Your task to perform on an android device: open chrome and create a bookmark for the current page Image 0: 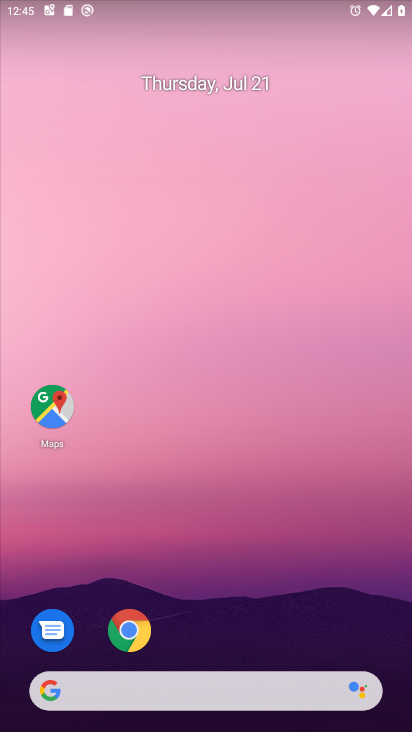
Step 0: drag from (238, 630) to (305, 130)
Your task to perform on an android device: open chrome and create a bookmark for the current page Image 1: 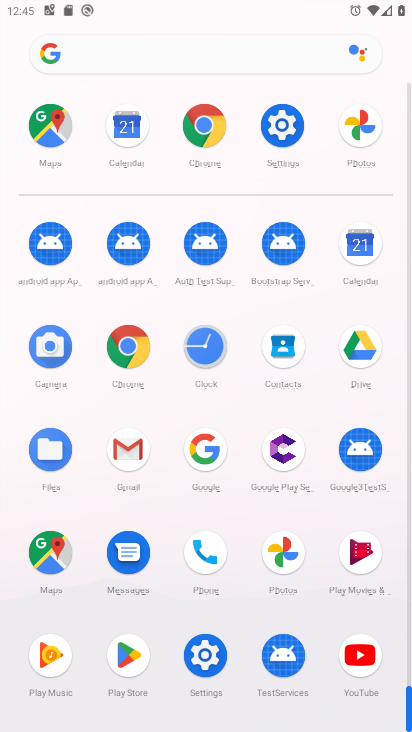
Step 1: click (130, 343)
Your task to perform on an android device: open chrome and create a bookmark for the current page Image 2: 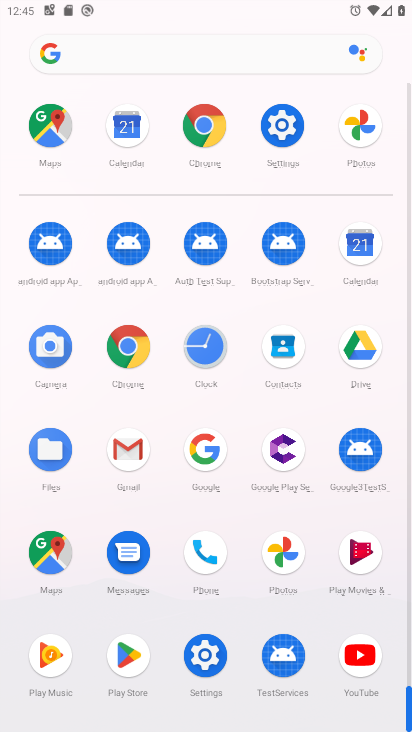
Step 2: click (130, 343)
Your task to perform on an android device: open chrome and create a bookmark for the current page Image 3: 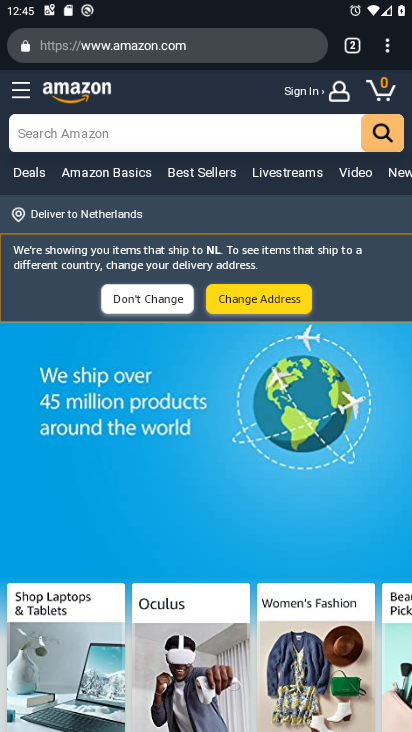
Step 3: task complete